Your task to perform on an android device: read, delete, or share a saved page in the chrome app Image 0: 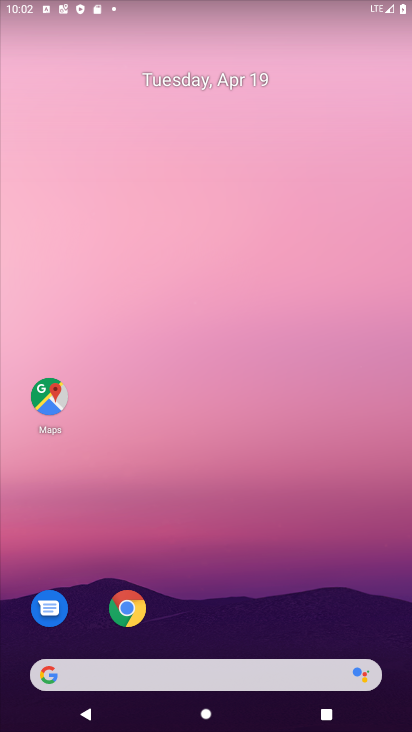
Step 0: click (119, 609)
Your task to perform on an android device: read, delete, or share a saved page in the chrome app Image 1: 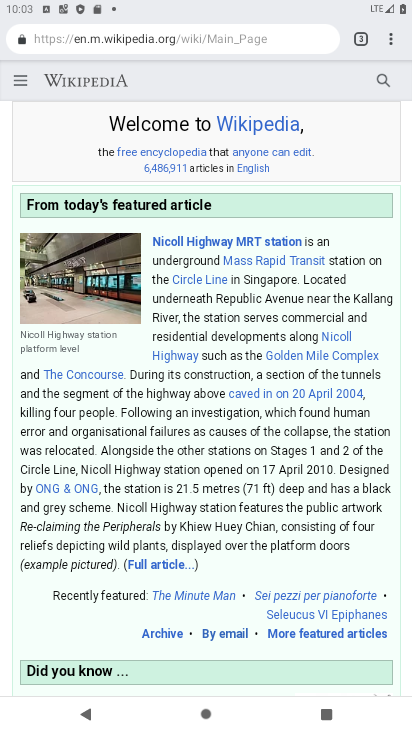
Step 1: click (389, 43)
Your task to perform on an android device: read, delete, or share a saved page in the chrome app Image 2: 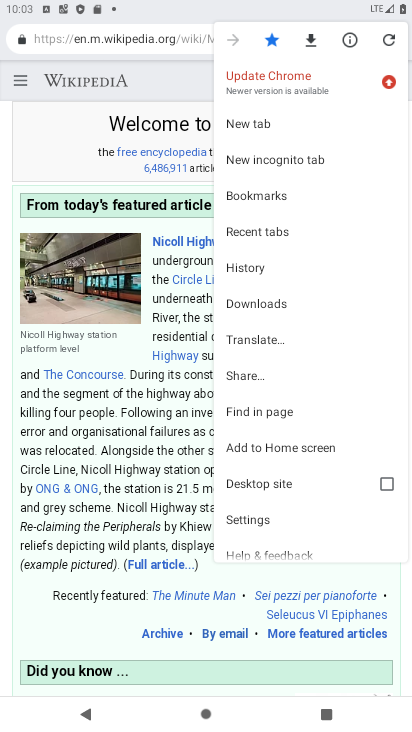
Step 2: click (255, 304)
Your task to perform on an android device: read, delete, or share a saved page in the chrome app Image 3: 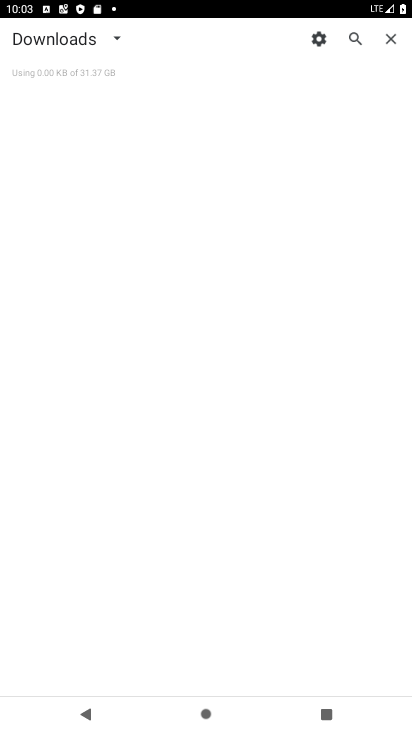
Step 3: click (114, 34)
Your task to perform on an android device: read, delete, or share a saved page in the chrome app Image 4: 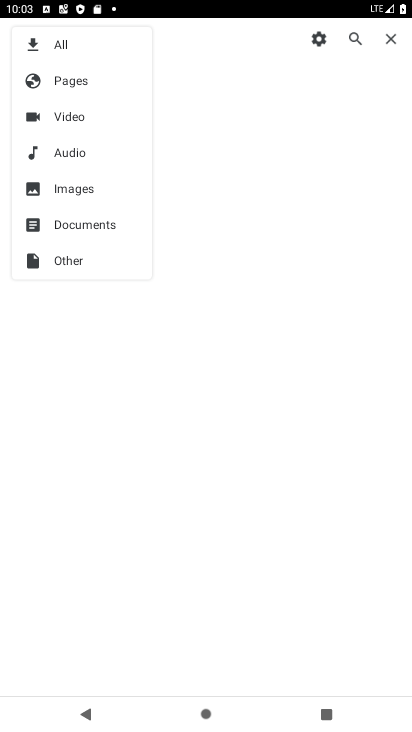
Step 4: click (67, 81)
Your task to perform on an android device: read, delete, or share a saved page in the chrome app Image 5: 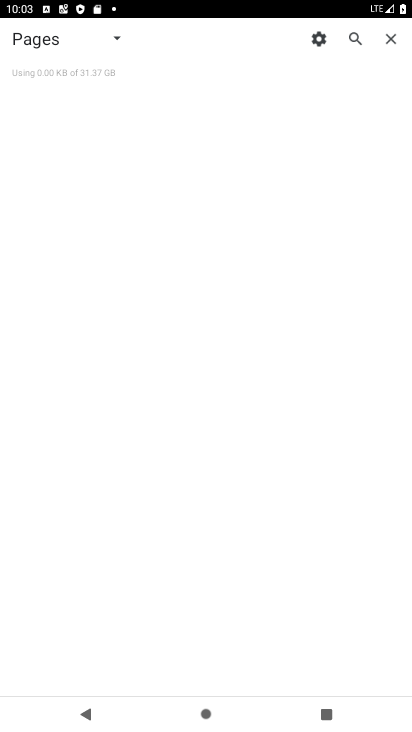
Step 5: task complete